Your task to perform on an android device: Go to sound settings Image 0: 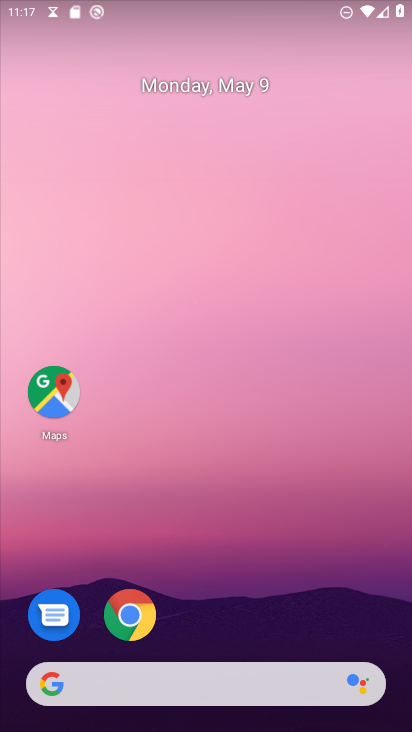
Step 0: drag from (206, 728) to (196, 237)
Your task to perform on an android device: Go to sound settings Image 1: 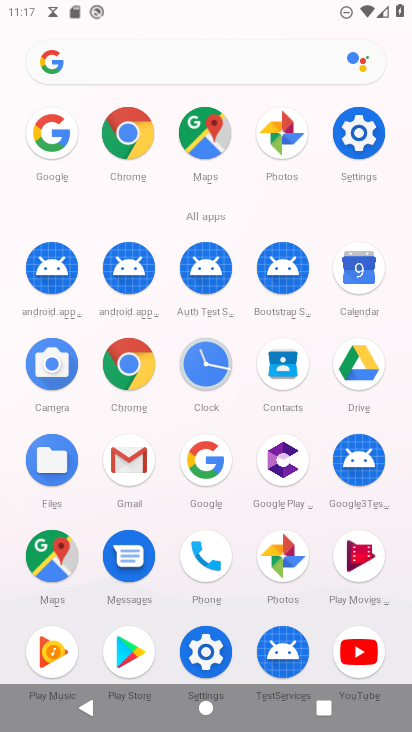
Step 1: click (358, 133)
Your task to perform on an android device: Go to sound settings Image 2: 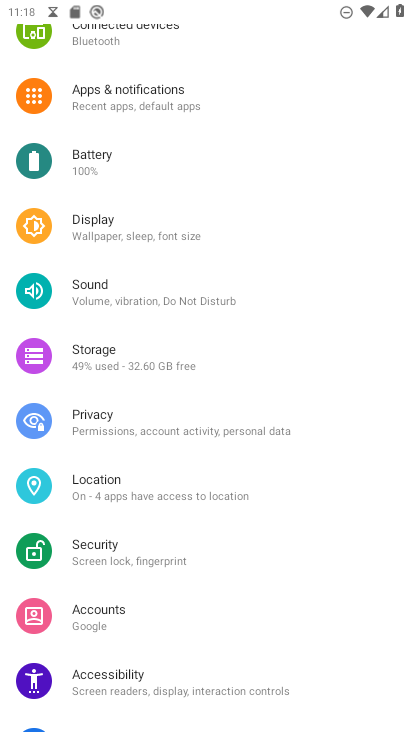
Step 2: click (118, 293)
Your task to perform on an android device: Go to sound settings Image 3: 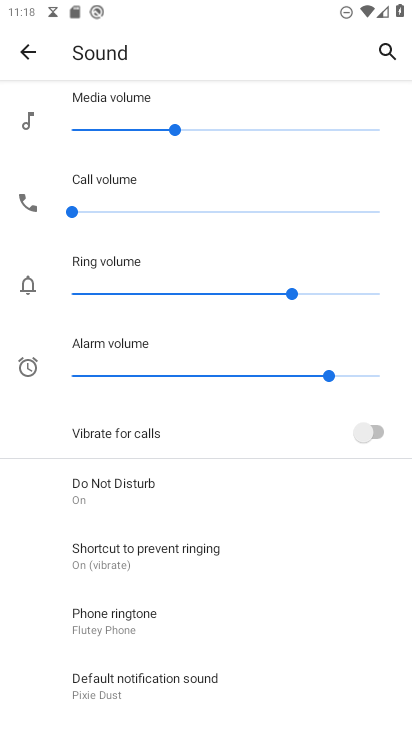
Step 3: task complete